Your task to perform on an android device: Search for hotels in Washington DC Image 0: 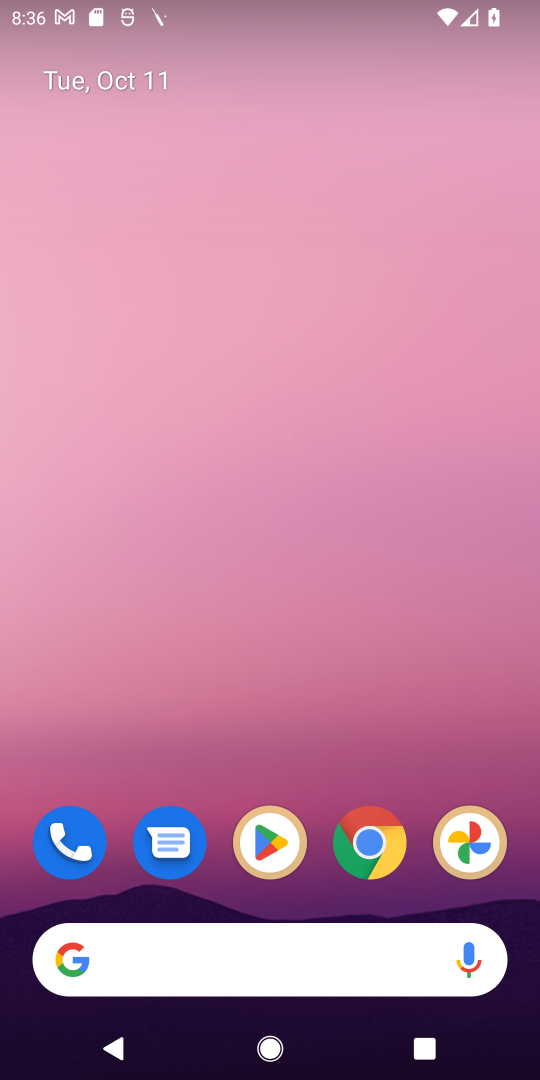
Step 0: click (374, 836)
Your task to perform on an android device: Search for hotels in Washington DC Image 1: 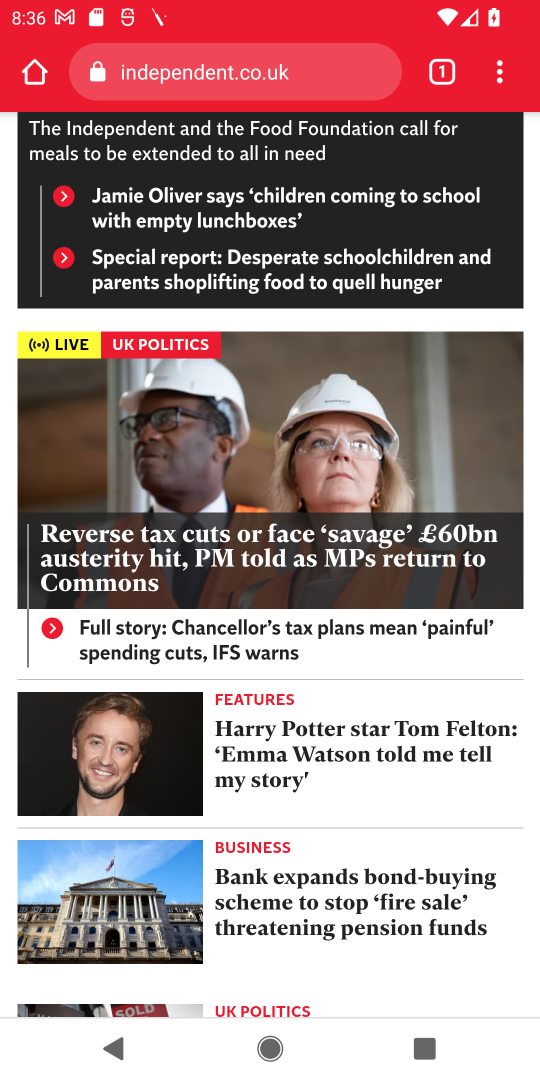
Step 1: click (222, 75)
Your task to perform on an android device: Search for hotels in Washington DC Image 2: 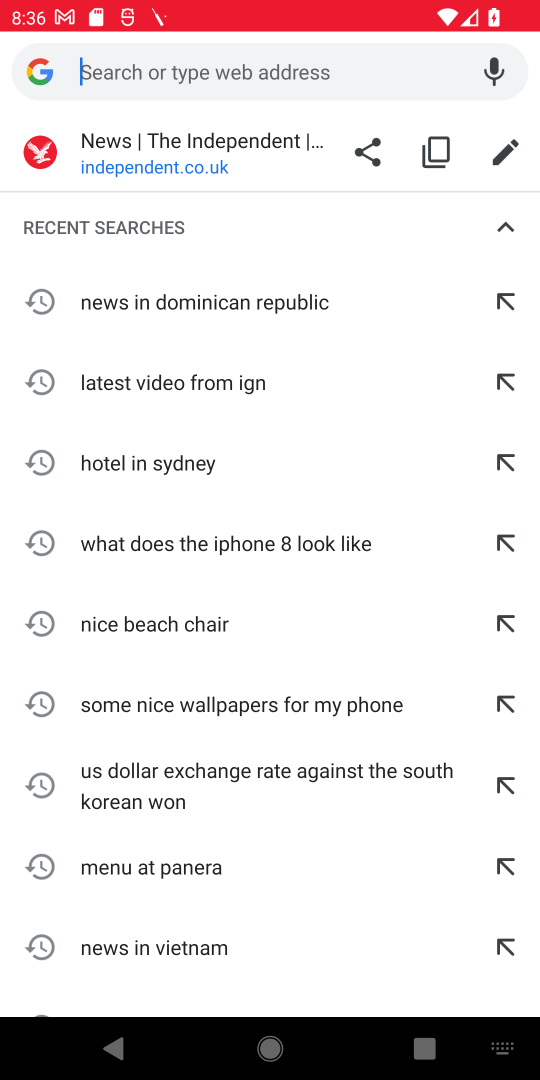
Step 2: type "hotel in washington dc"
Your task to perform on an android device: Search for hotels in Washington DC Image 3: 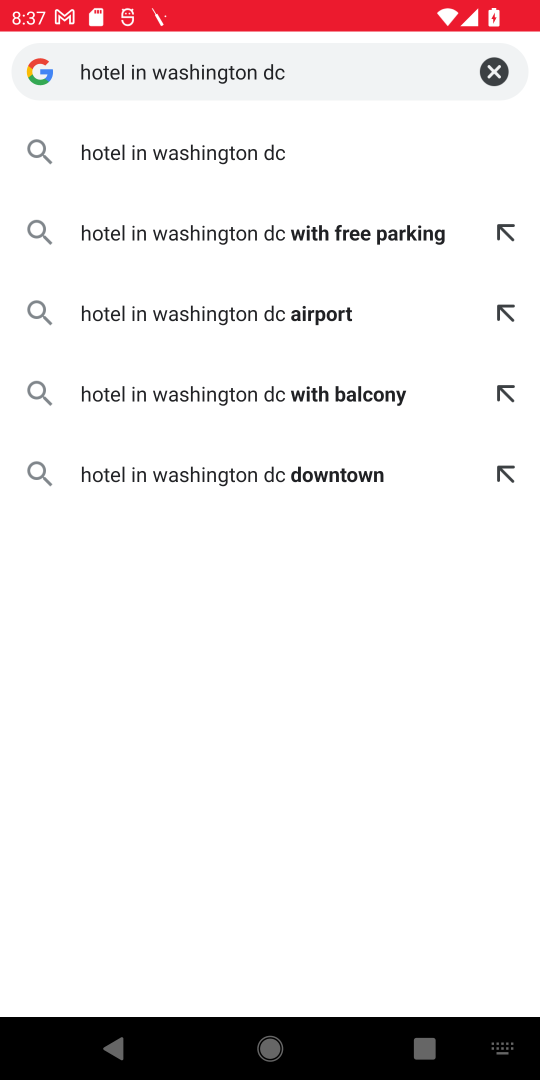
Step 3: click (209, 156)
Your task to perform on an android device: Search for hotels in Washington DC Image 4: 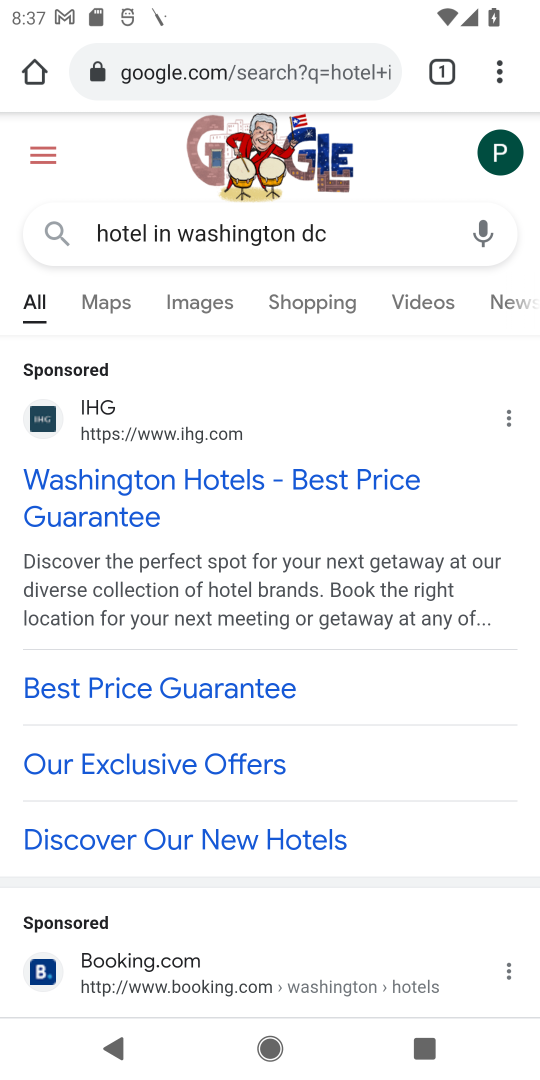
Step 4: click (141, 480)
Your task to perform on an android device: Search for hotels in Washington DC Image 5: 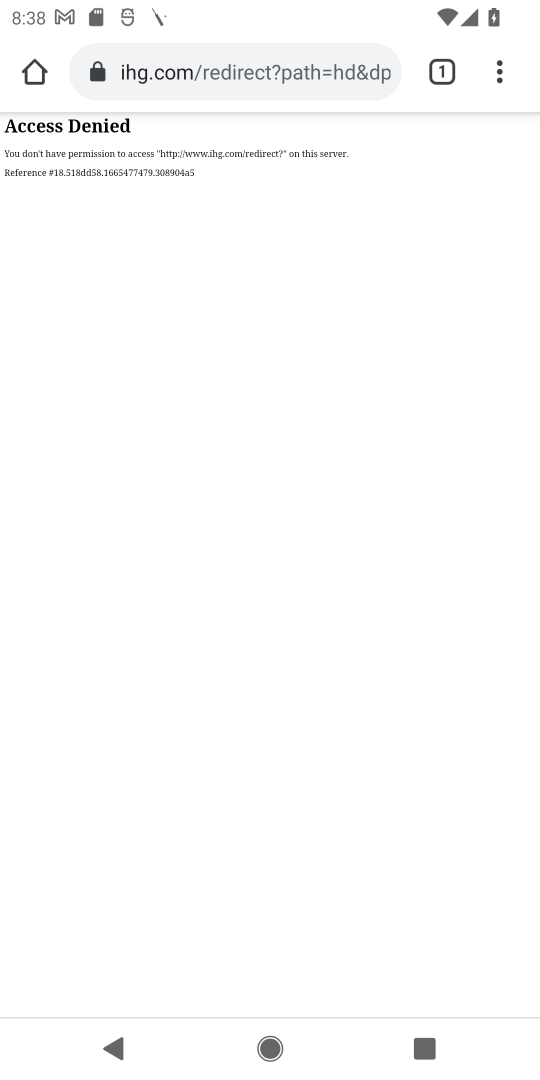
Step 5: task complete